Your task to perform on an android device: create a new album in the google photos Image 0: 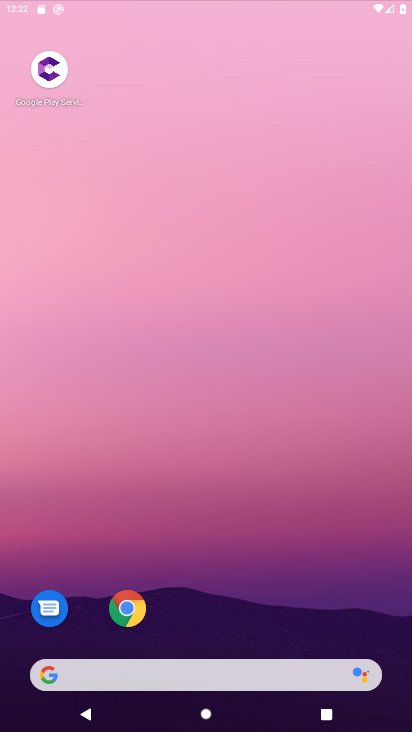
Step 0: press home button
Your task to perform on an android device: create a new album in the google photos Image 1: 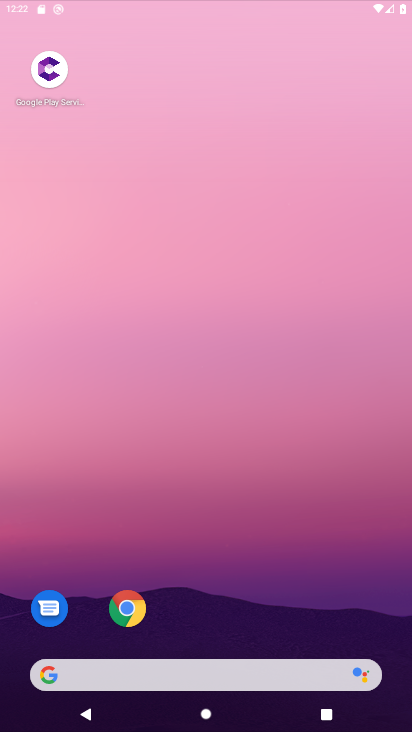
Step 1: click (261, 21)
Your task to perform on an android device: create a new album in the google photos Image 2: 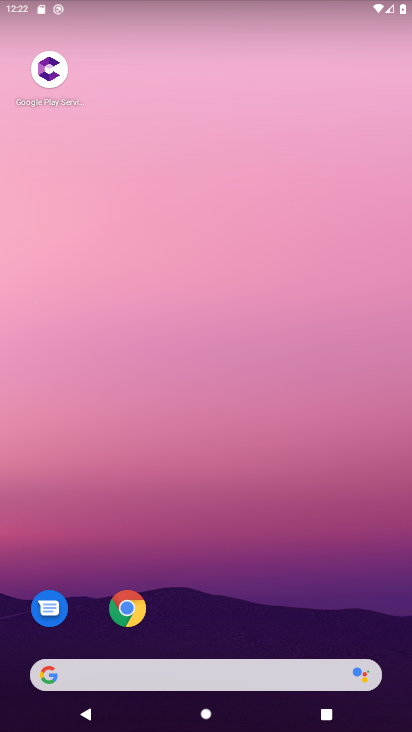
Step 2: drag from (396, 654) to (263, 82)
Your task to perform on an android device: create a new album in the google photos Image 3: 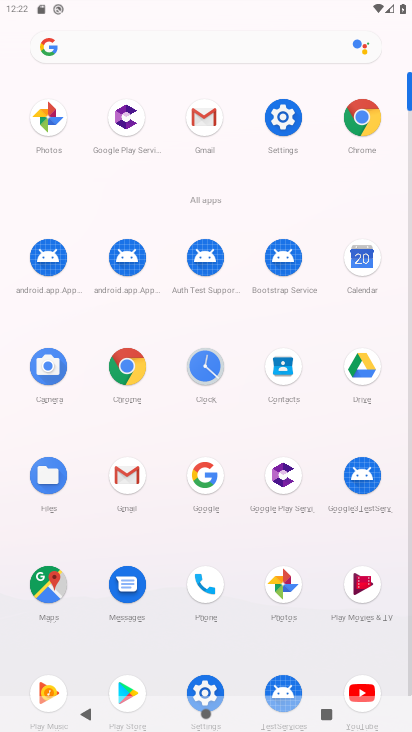
Step 3: click (288, 591)
Your task to perform on an android device: create a new album in the google photos Image 4: 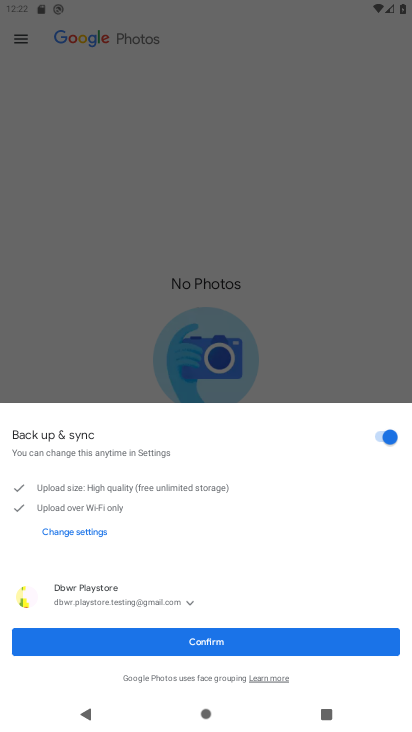
Step 4: click (296, 642)
Your task to perform on an android device: create a new album in the google photos Image 5: 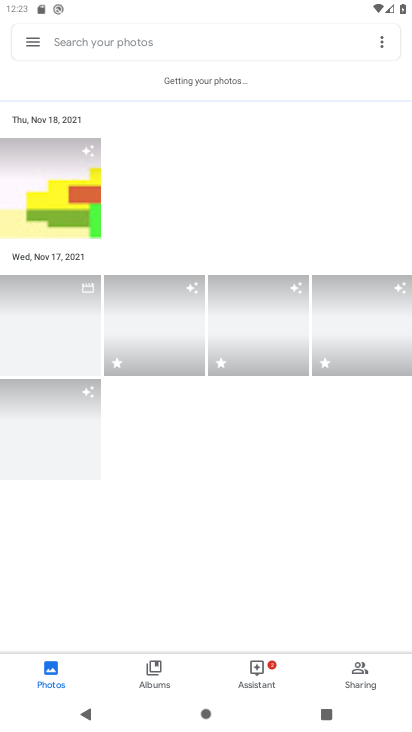
Step 5: click (384, 49)
Your task to perform on an android device: create a new album in the google photos Image 6: 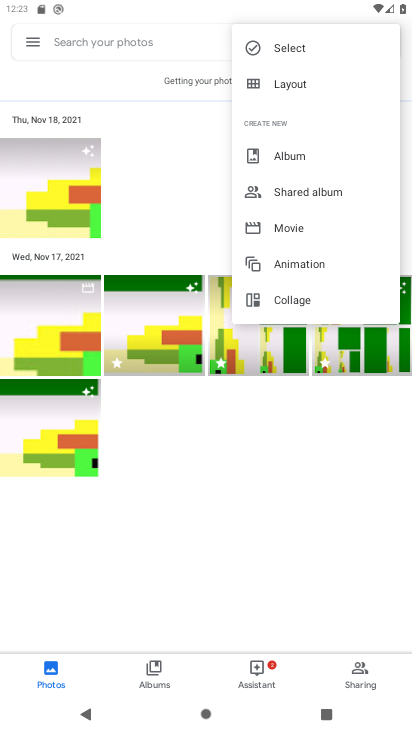
Step 6: drag from (58, 223) to (200, 343)
Your task to perform on an android device: create a new album in the google photos Image 7: 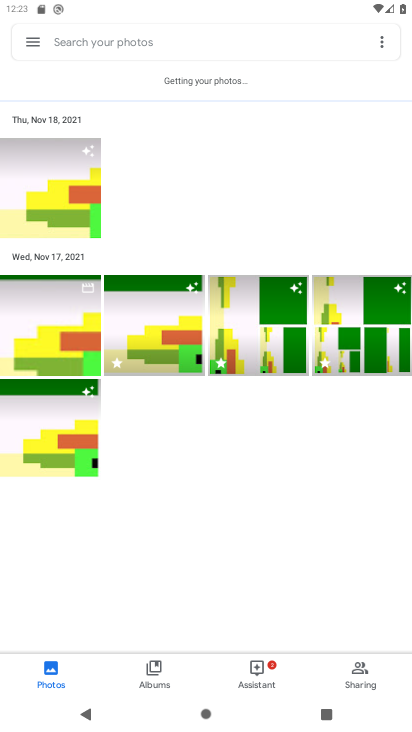
Step 7: click (214, 332)
Your task to perform on an android device: create a new album in the google photos Image 8: 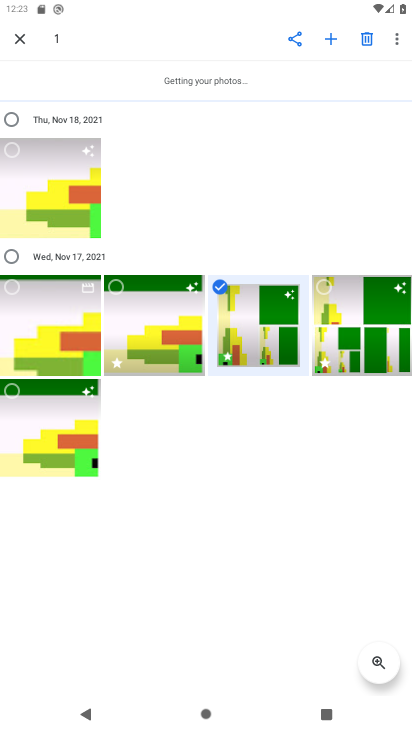
Step 8: click (200, 340)
Your task to perform on an android device: create a new album in the google photos Image 9: 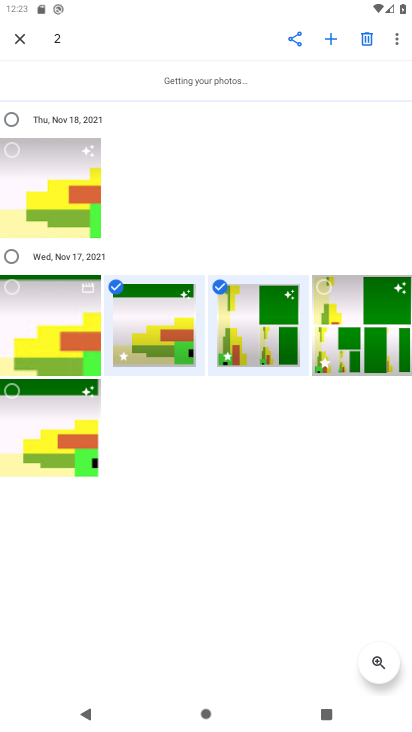
Step 9: click (387, 322)
Your task to perform on an android device: create a new album in the google photos Image 10: 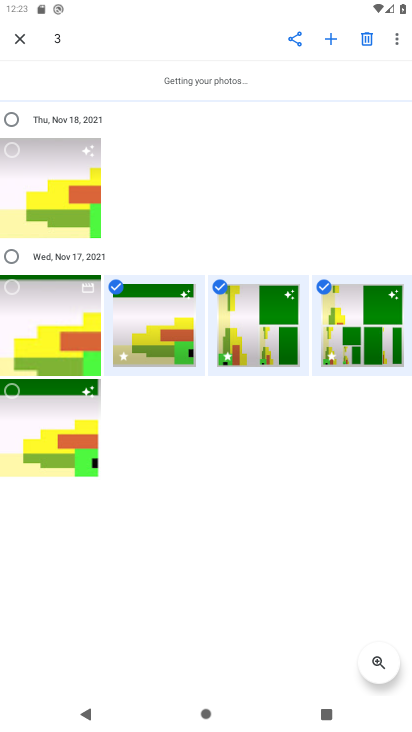
Step 10: click (330, 38)
Your task to perform on an android device: create a new album in the google photos Image 11: 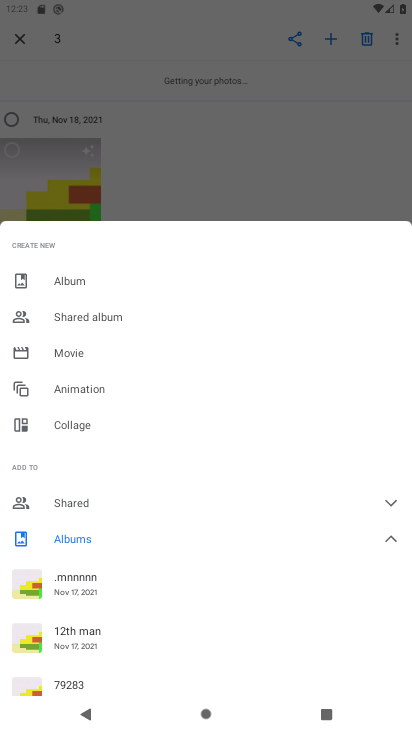
Step 11: click (19, 298)
Your task to perform on an android device: create a new album in the google photos Image 12: 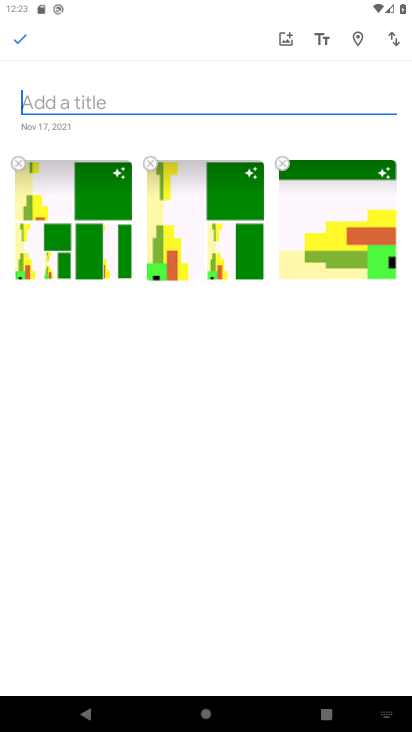
Step 12: type "nnj"
Your task to perform on an android device: create a new album in the google photos Image 13: 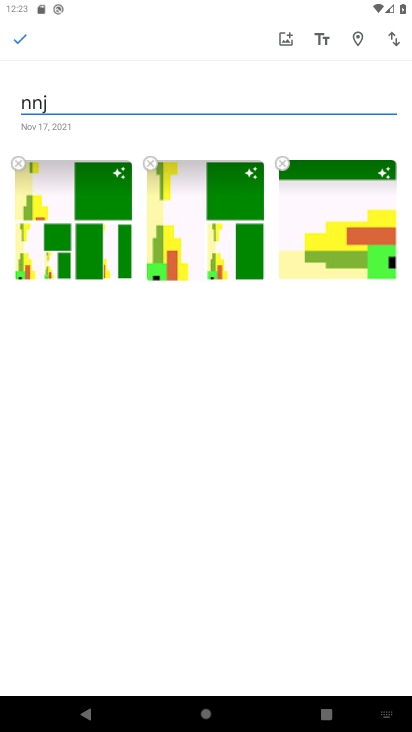
Step 13: click (17, 41)
Your task to perform on an android device: create a new album in the google photos Image 14: 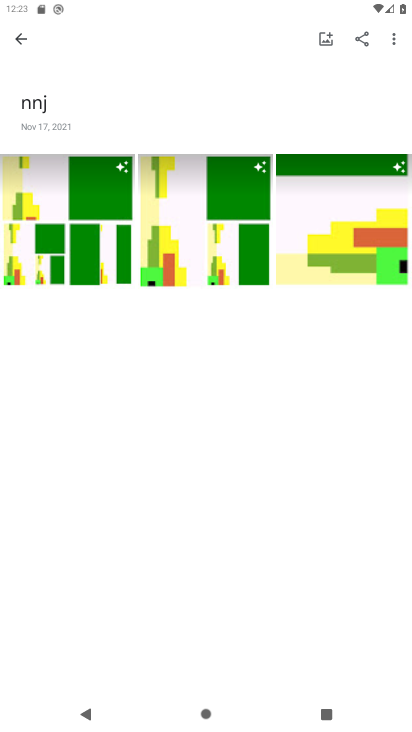
Step 14: task complete